Your task to perform on an android device: clear history in the chrome app Image 0: 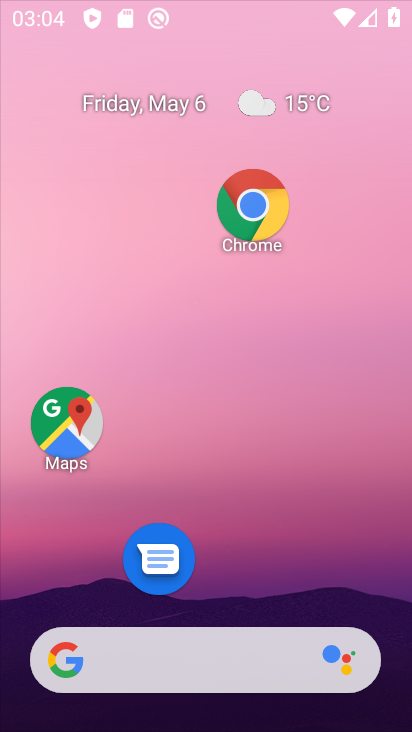
Step 0: task complete